Your task to perform on an android device: See recent photos Image 0: 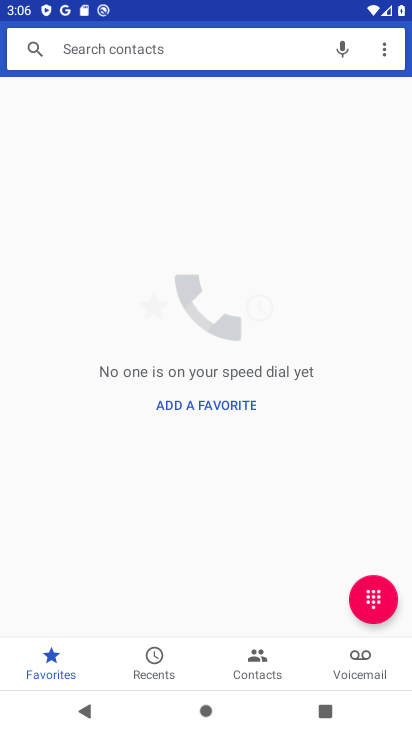
Step 0: press home button
Your task to perform on an android device: See recent photos Image 1: 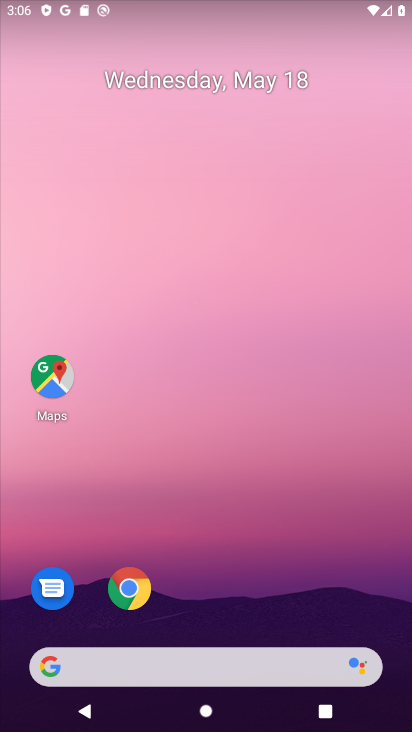
Step 1: drag from (220, 632) to (270, 118)
Your task to perform on an android device: See recent photos Image 2: 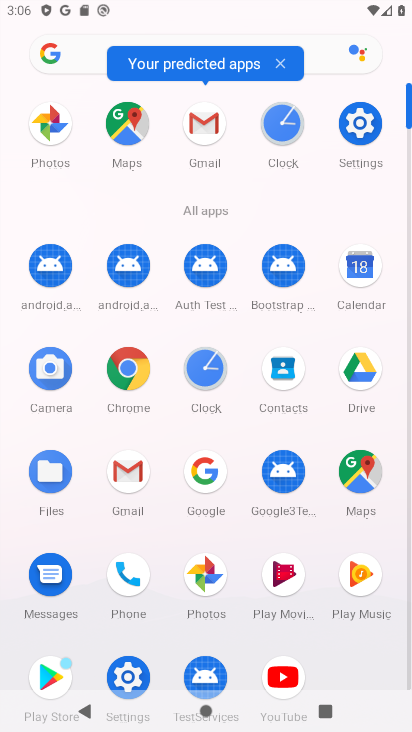
Step 2: click (210, 577)
Your task to perform on an android device: See recent photos Image 3: 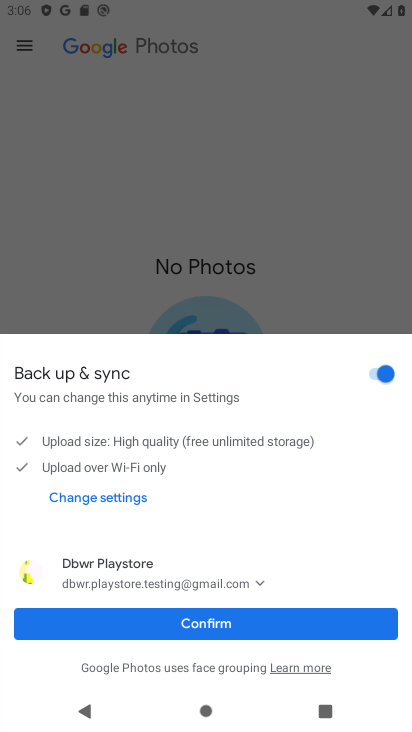
Step 3: click (267, 627)
Your task to perform on an android device: See recent photos Image 4: 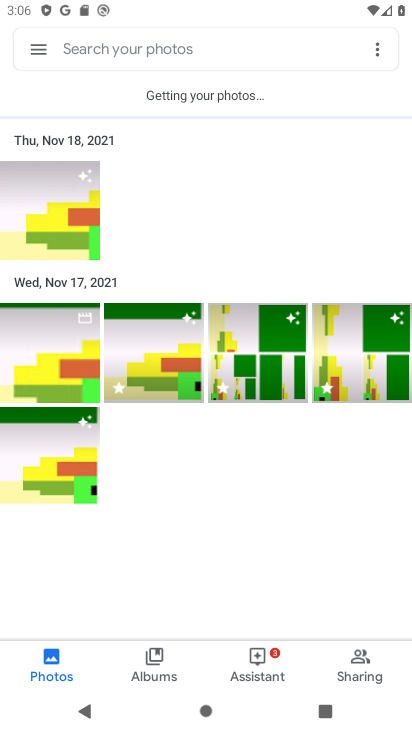
Step 4: task complete